Your task to perform on an android device: Go to internet settings Image 0: 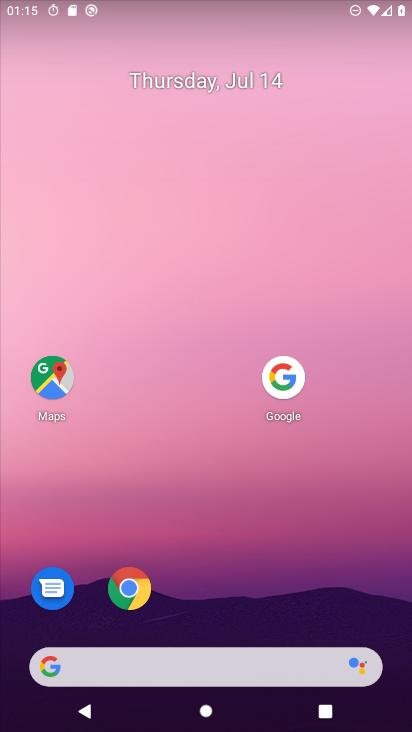
Step 0: drag from (173, 663) to (275, 80)
Your task to perform on an android device: Go to internet settings Image 1: 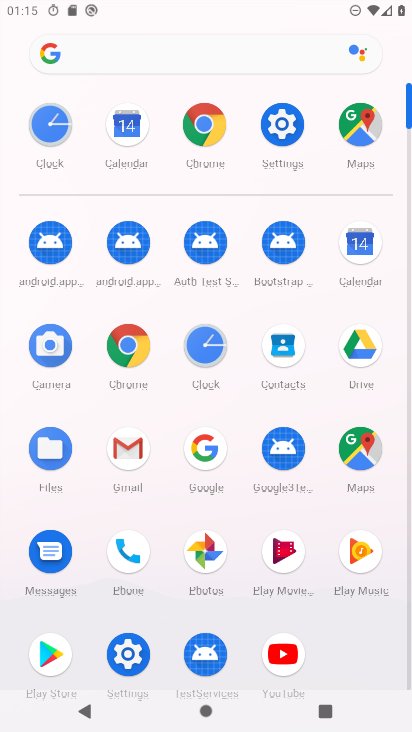
Step 1: click (282, 134)
Your task to perform on an android device: Go to internet settings Image 2: 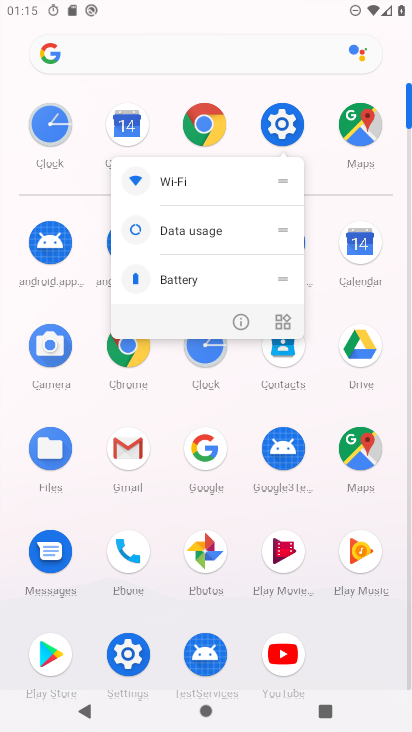
Step 2: click (289, 125)
Your task to perform on an android device: Go to internet settings Image 3: 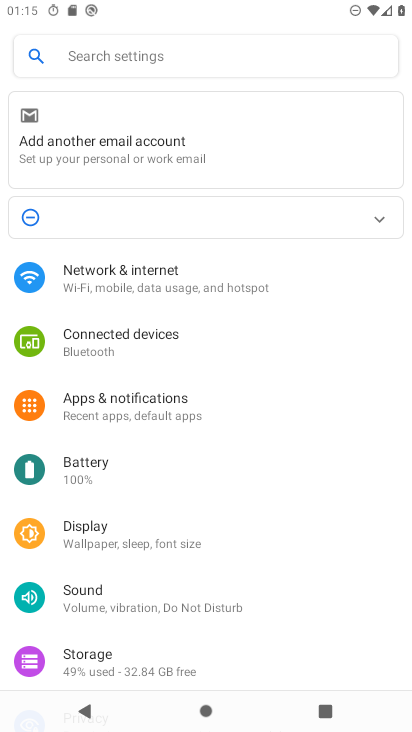
Step 3: click (169, 271)
Your task to perform on an android device: Go to internet settings Image 4: 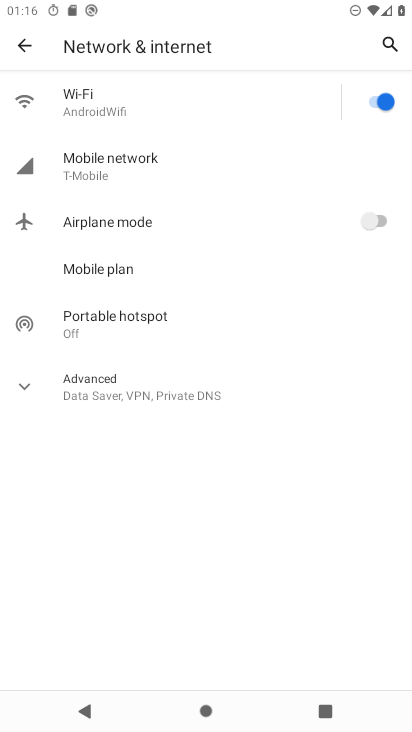
Step 4: task complete